Your task to perform on an android device: Search for sushi restaurants on Maps Image 0: 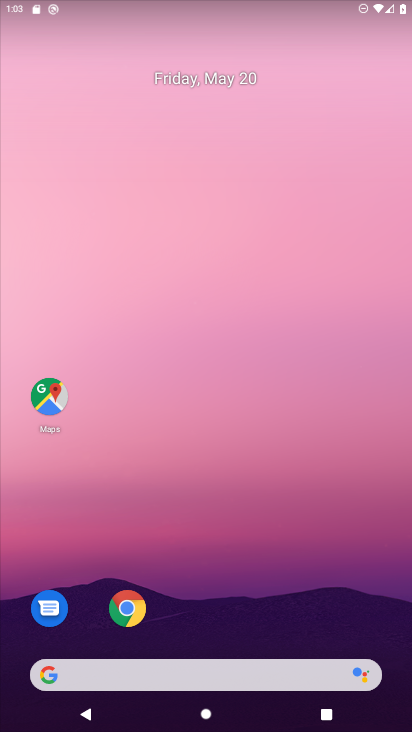
Step 0: click (40, 412)
Your task to perform on an android device: Search for sushi restaurants on Maps Image 1: 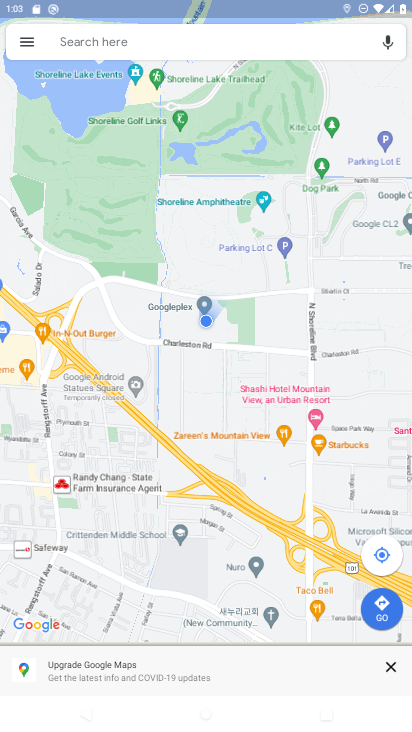
Step 1: click (63, 46)
Your task to perform on an android device: Search for sushi restaurants on Maps Image 2: 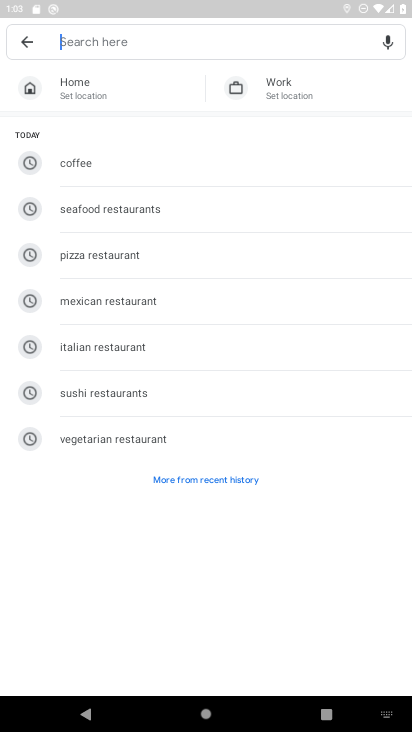
Step 2: type " sushi restaurants "
Your task to perform on an android device: Search for sushi restaurants on Maps Image 3: 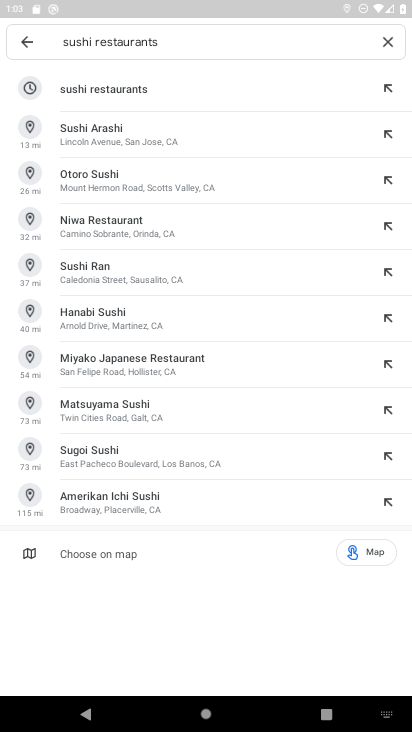
Step 3: click (201, 93)
Your task to perform on an android device: Search for sushi restaurants on Maps Image 4: 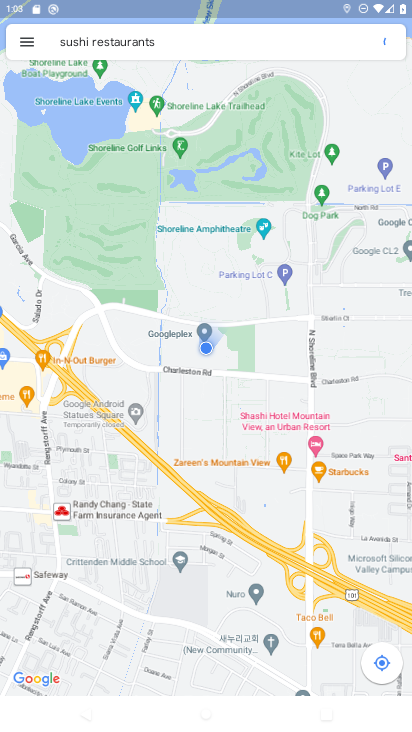
Step 4: task complete